Your task to perform on an android device: find snoozed emails in the gmail app Image 0: 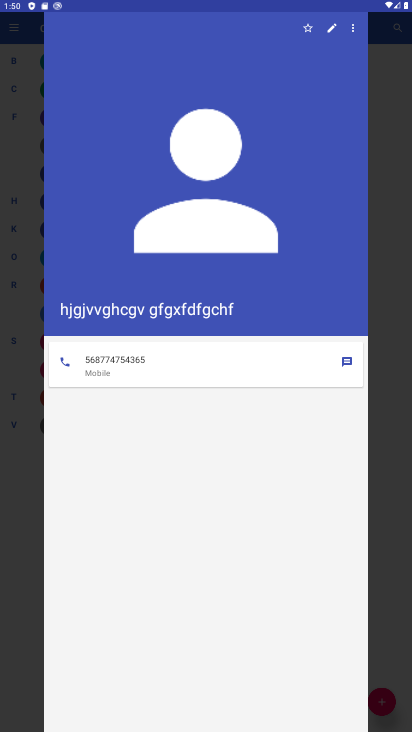
Step 0: press home button
Your task to perform on an android device: find snoozed emails in the gmail app Image 1: 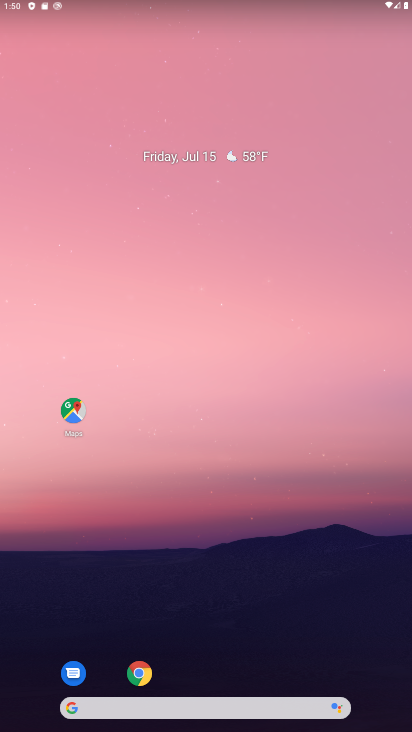
Step 1: drag from (389, 535) to (324, 169)
Your task to perform on an android device: find snoozed emails in the gmail app Image 2: 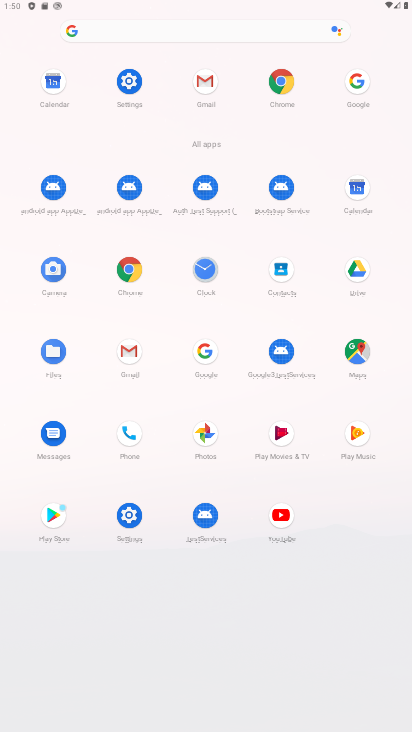
Step 2: click (130, 348)
Your task to perform on an android device: find snoozed emails in the gmail app Image 3: 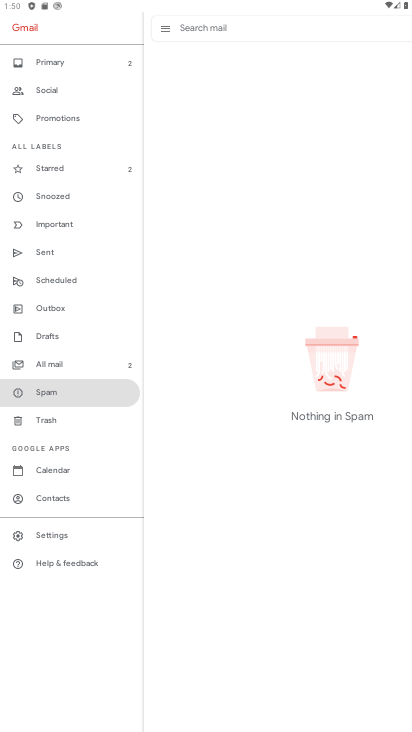
Step 3: click (65, 196)
Your task to perform on an android device: find snoozed emails in the gmail app Image 4: 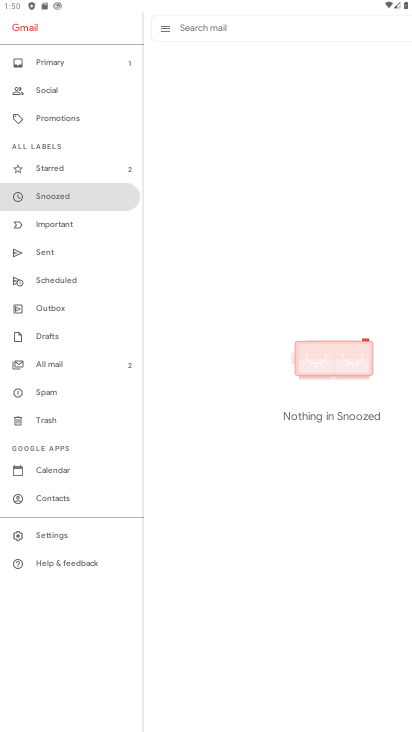
Step 4: task complete